Your task to perform on an android device: Open Chrome and go to settings Image 0: 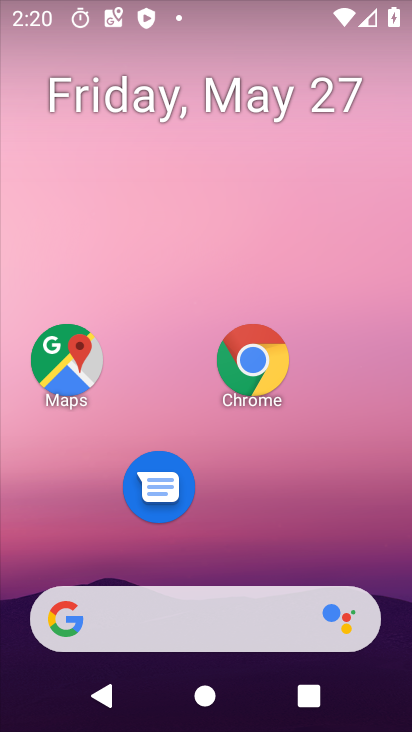
Step 0: click (253, 365)
Your task to perform on an android device: Open Chrome and go to settings Image 1: 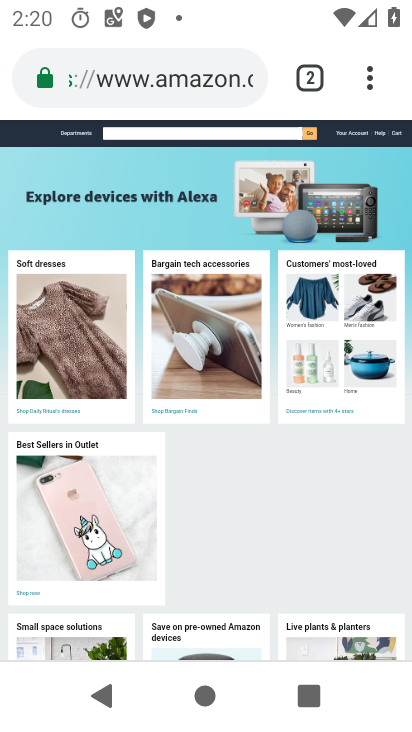
Step 1: click (359, 80)
Your task to perform on an android device: Open Chrome and go to settings Image 2: 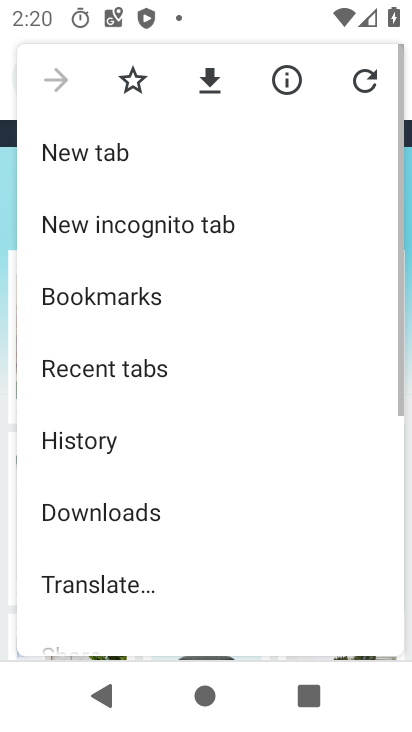
Step 2: drag from (185, 562) to (229, 172)
Your task to perform on an android device: Open Chrome and go to settings Image 3: 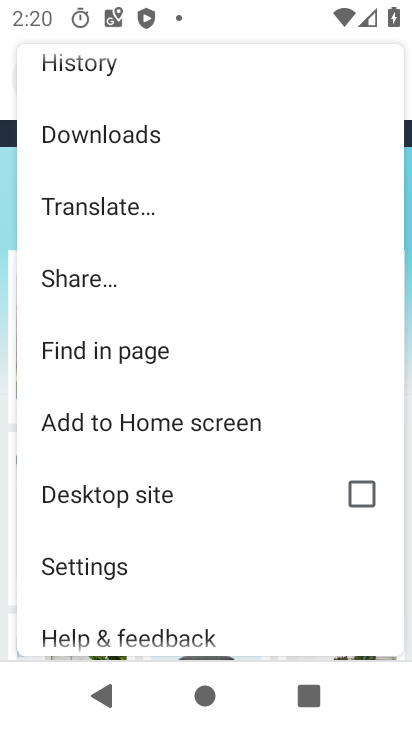
Step 3: click (108, 570)
Your task to perform on an android device: Open Chrome and go to settings Image 4: 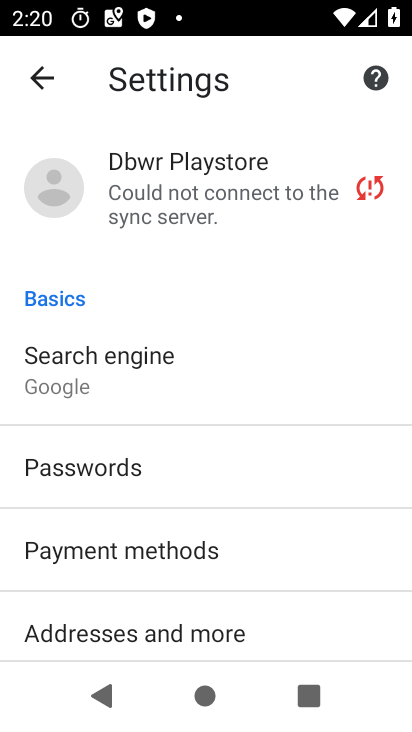
Step 4: task complete